Your task to perform on an android device: change keyboard looks Image 0: 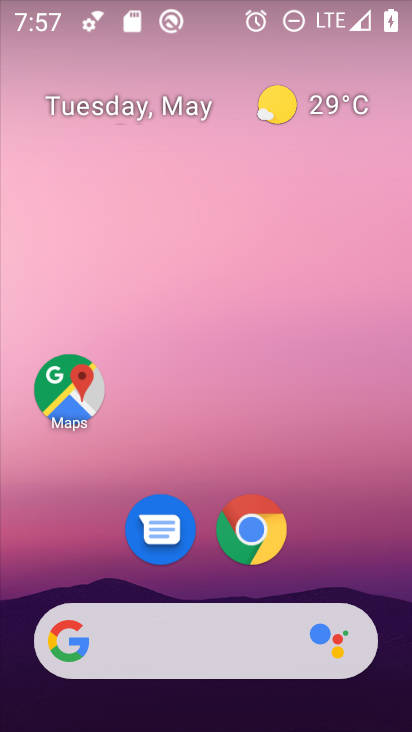
Step 0: drag from (409, 637) to (309, 74)
Your task to perform on an android device: change keyboard looks Image 1: 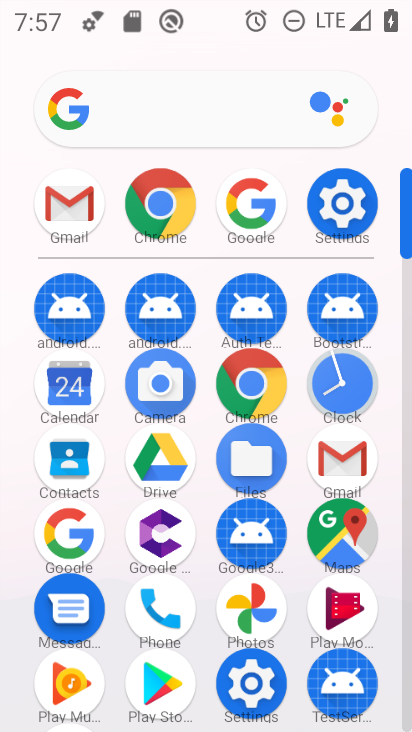
Step 1: click (361, 193)
Your task to perform on an android device: change keyboard looks Image 2: 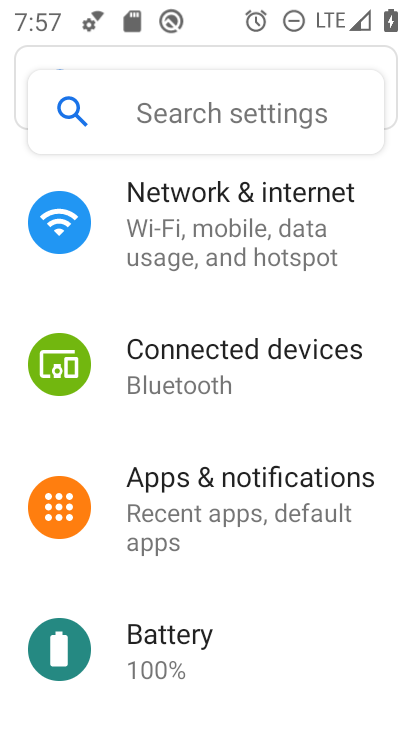
Step 2: drag from (126, 690) to (270, 164)
Your task to perform on an android device: change keyboard looks Image 3: 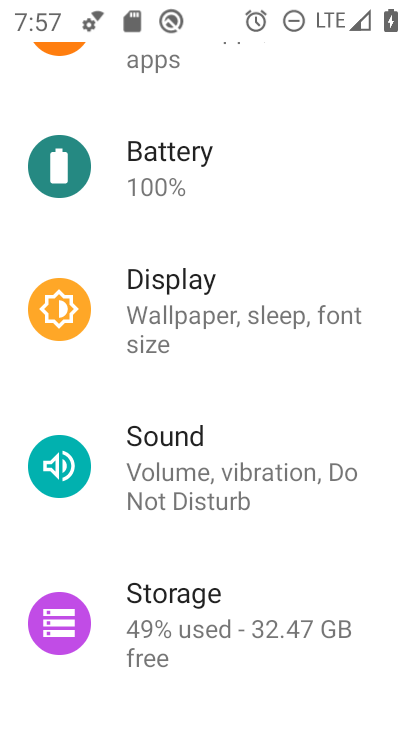
Step 3: drag from (135, 664) to (241, 203)
Your task to perform on an android device: change keyboard looks Image 4: 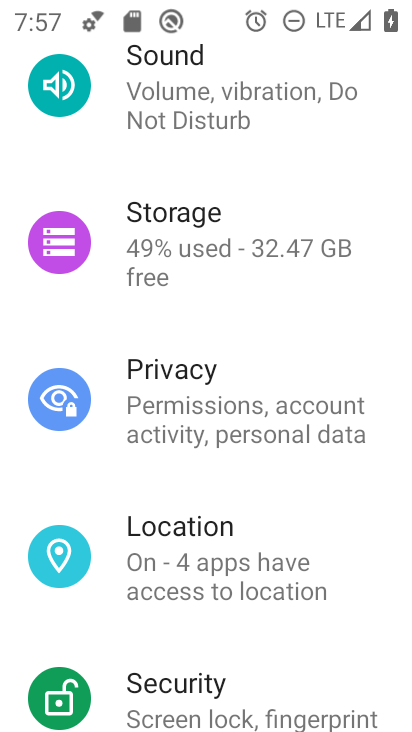
Step 4: drag from (150, 651) to (270, 145)
Your task to perform on an android device: change keyboard looks Image 5: 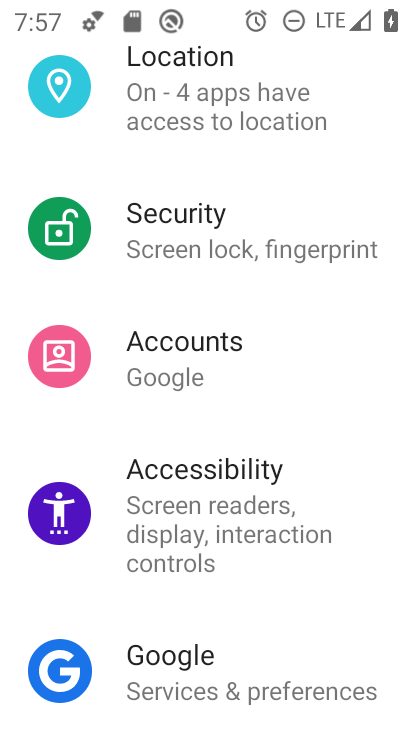
Step 5: drag from (203, 634) to (278, 60)
Your task to perform on an android device: change keyboard looks Image 6: 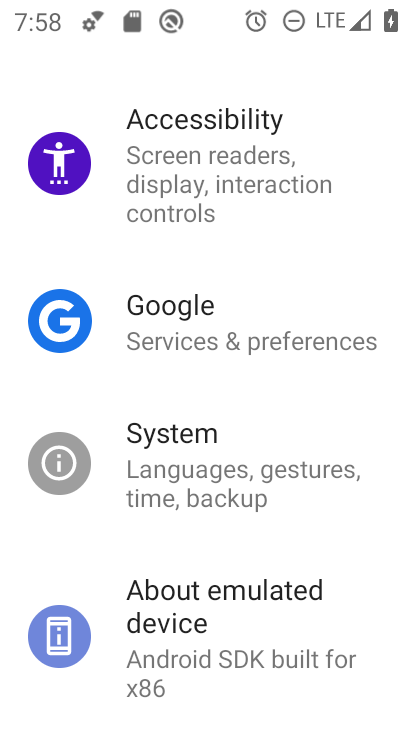
Step 6: click (224, 593)
Your task to perform on an android device: change keyboard looks Image 7: 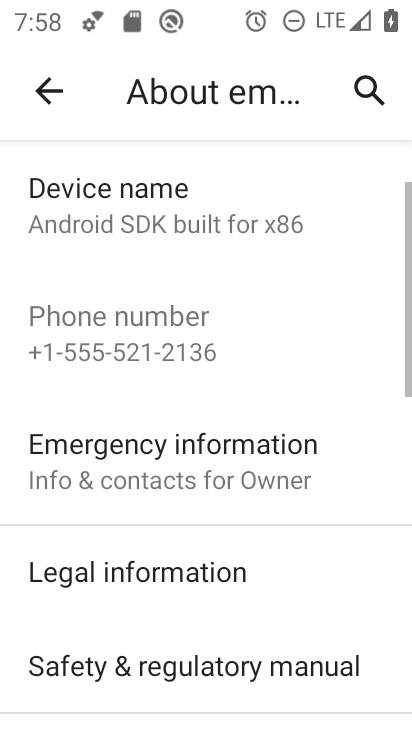
Step 7: press back button
Your task to perform on an android device: change keyboard looks Image 8: 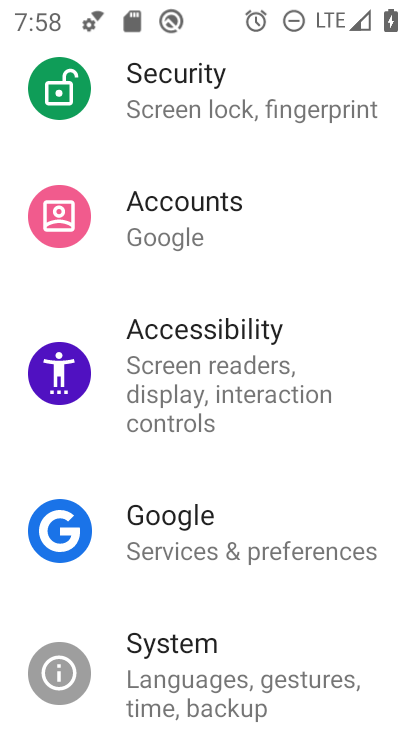
Step 8: click (286, 687)
Your task to perform on an android device: change keyboard looks Image 9: 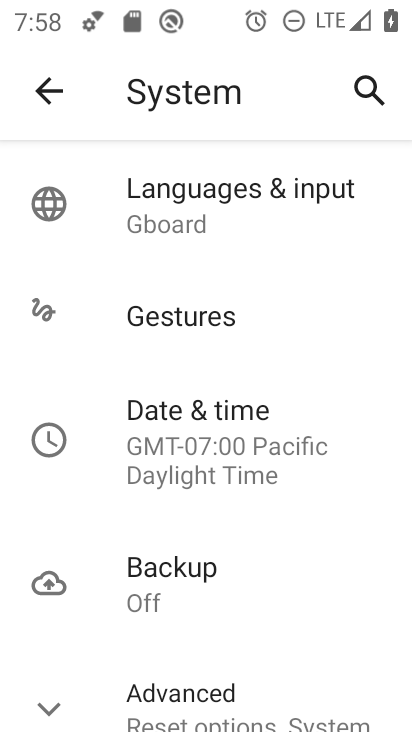
Step 9: click (253, 235)
Your task to perform on an android device: change keyboard looks Image 10: 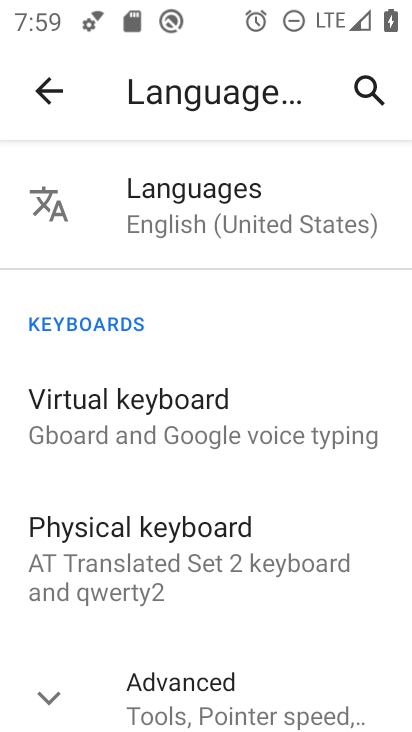
Step 10: click (149, 441)
Your task to perform on an android device: change keyboard looks Image 11: 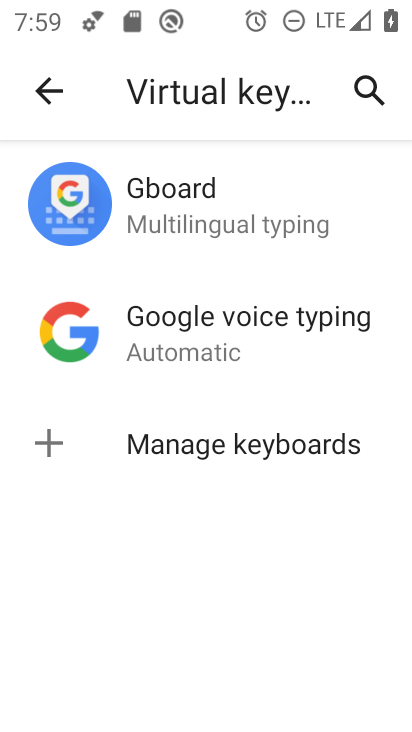
Step 11: click (182, 194)
Your task to perform on an android device: change keyboard looks Image 12: 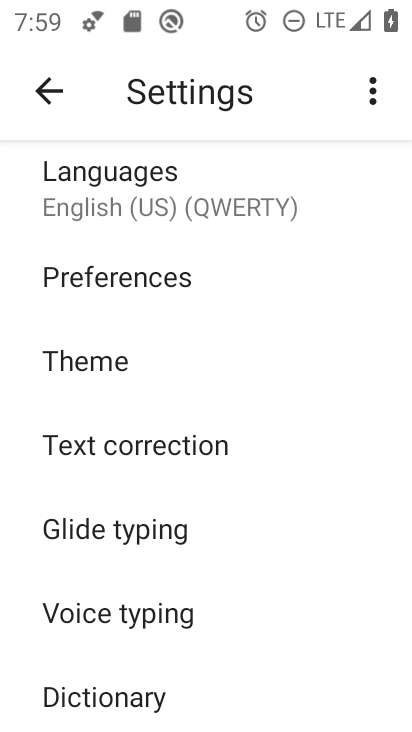
Step 12: click (129, 360)
Your task to perform on an android device: change keyboard looks Image 13: 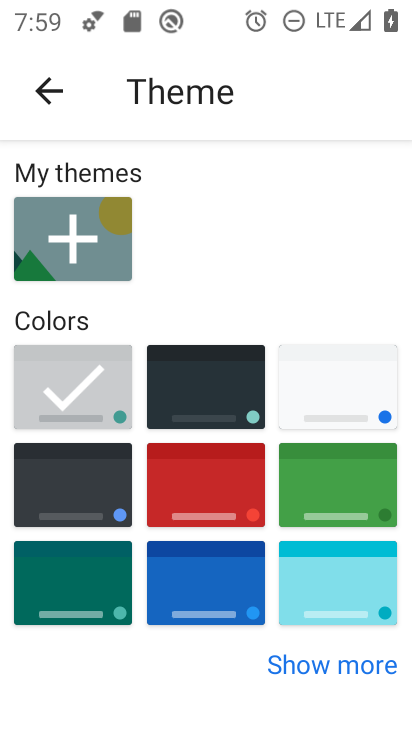
Step 13: click (187, 393)
Your task to perform on an android device: change keyboard looks Image 14: 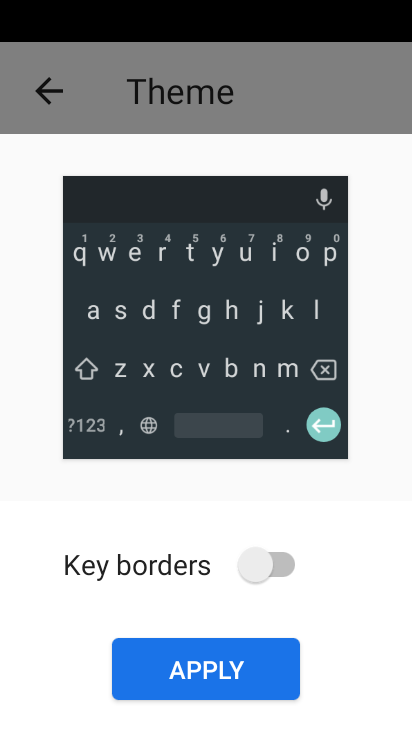
Step 14: click (199, 668)
Your task to perform on an android device: change keyboard looks Image 15: 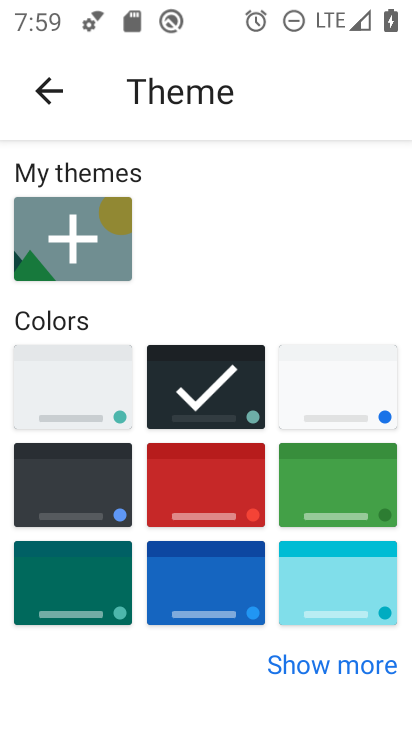
Step 15: task complete